Your task to perform on an android device: Open Reddit.com Image 0: 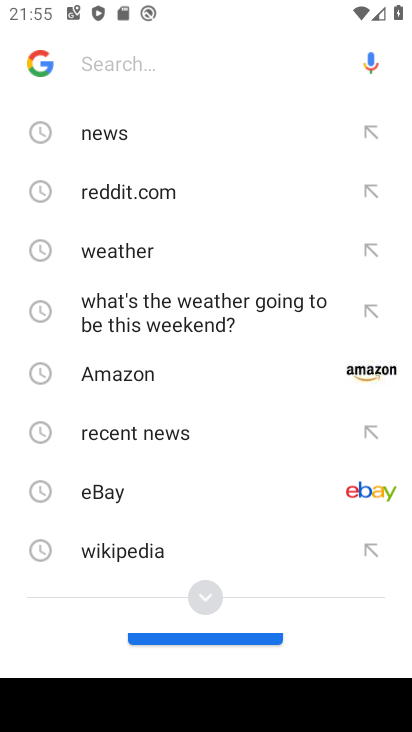
Step 0: press home button
Your task to perform on an android device: Open Reddit.com Image 1: 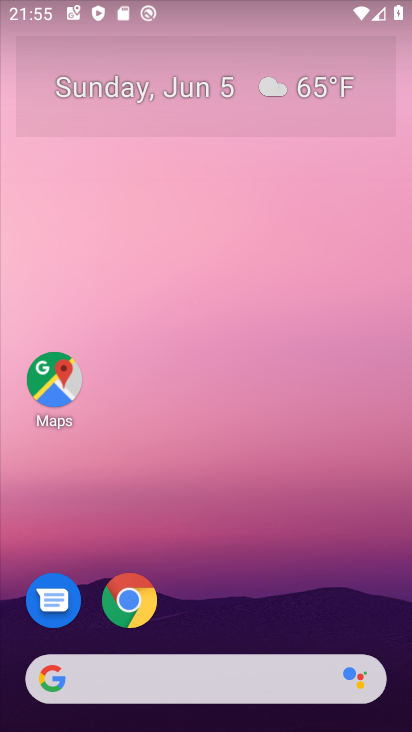
Step 1: click (131, 599)
Your task to perform on an android device: Open Reddit.com Image 2: 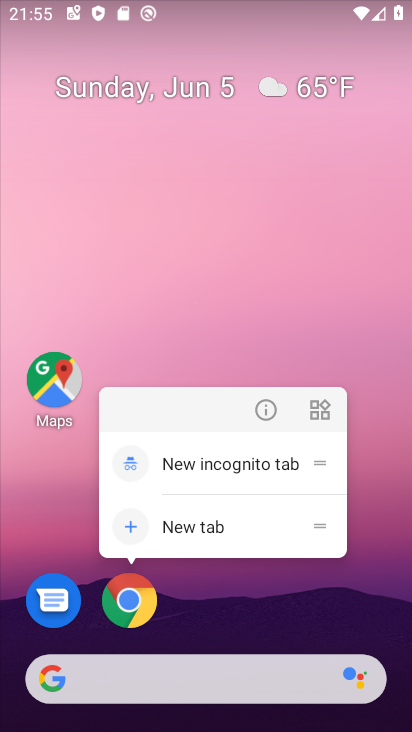
Step 2: click (131, 599)
Your task to perform on an android device: Open Reddit.com Image 3: 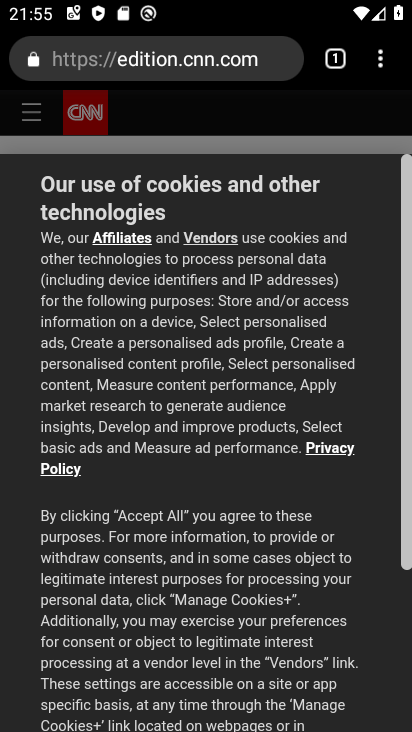
Step 3: click (196, 61)
Your task to perform on an android device: Open Reddit.com Image 4: 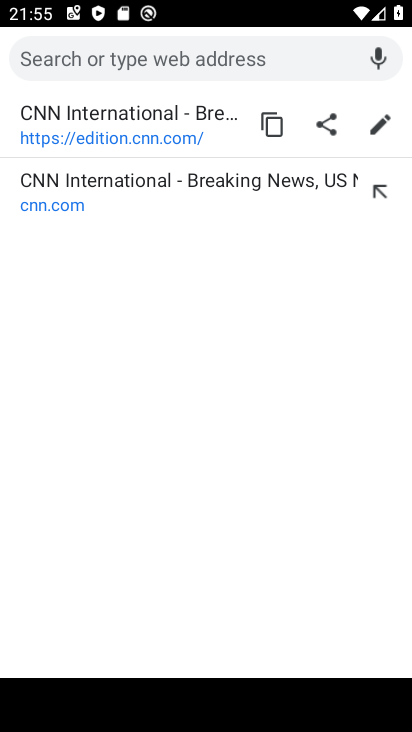
Step 4: type "reddit.com"
Your task to perform on an android device: Open Reddit.com Image 5: 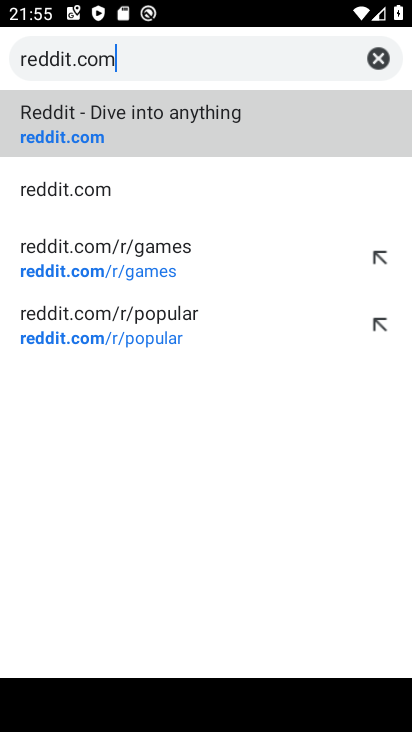
Step 5: click (88, 138)
Your task to perform on an android device: Open Reddit.com Image 6: 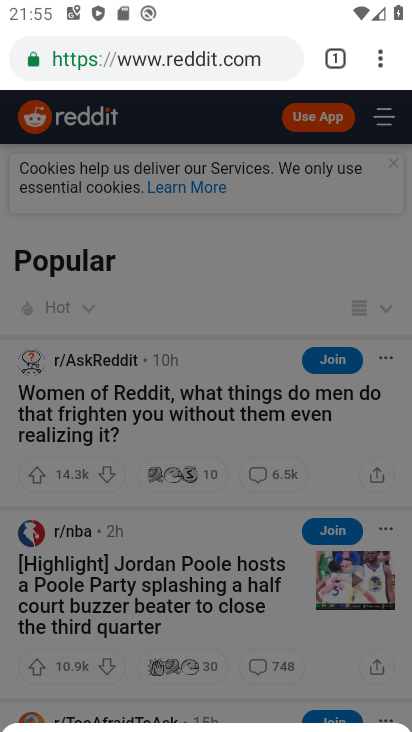
Step 6: task complete